Your task to perform on an android device: see tabs open on other devices in the chrome app Image 0: 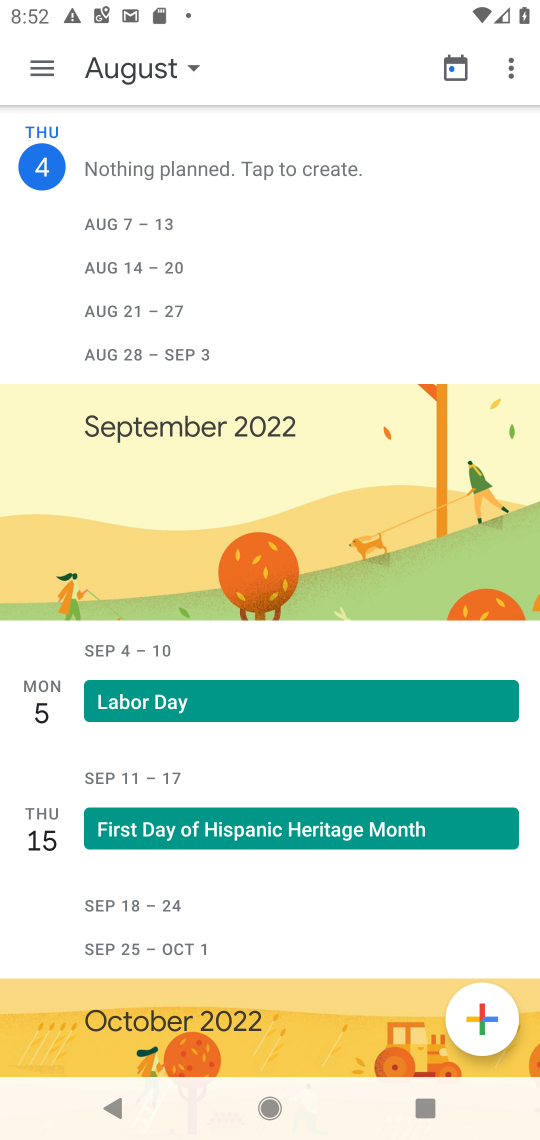
Step 0: press home button
Your task to perform on an android device: see tabs open on other devices in the chrome app Image 1: 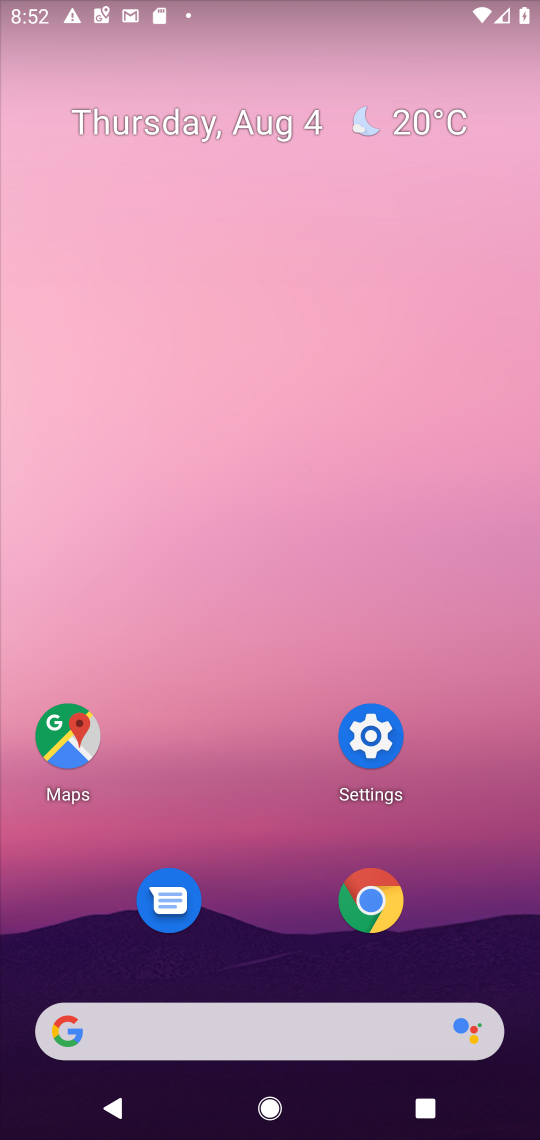
Step 1: click (375, 889)
Your task to perform on an android device: see tabs open on other devices in the chrome app Image 2: 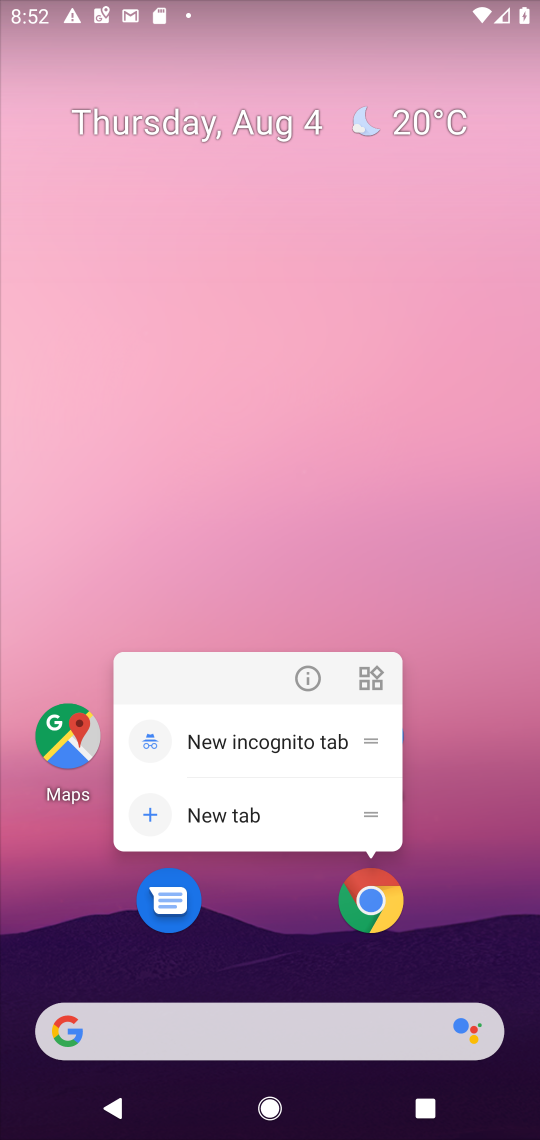
Step 2: click (375, 891)
Your task to perform on an android device: see tabs open on other devices in the chrome app Image 3: 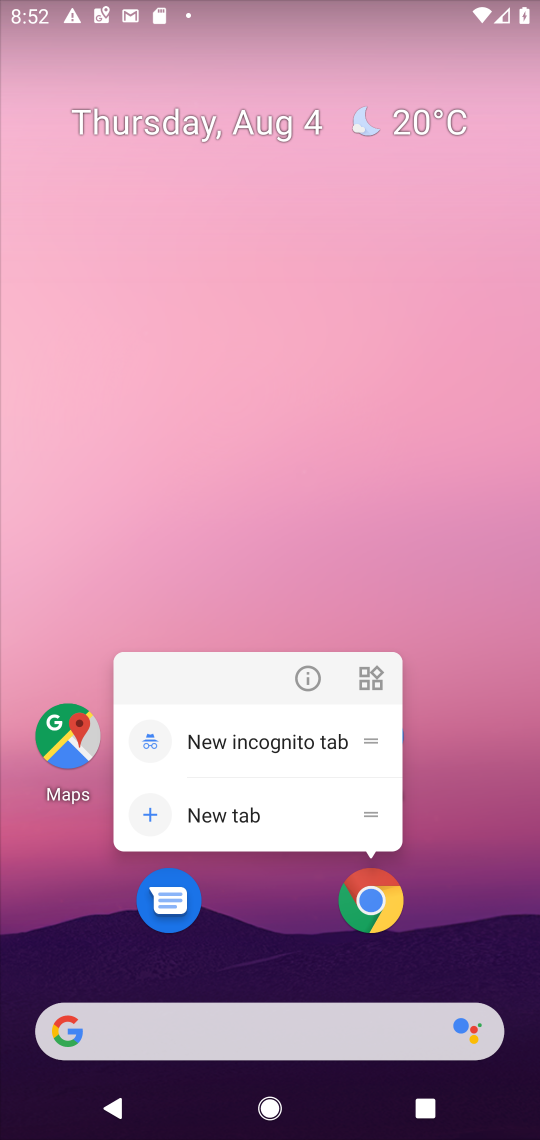
Step 3: click (370, 907)
Your task to perform on an android device: see tabs open on other devices in the chrome app Image 4: 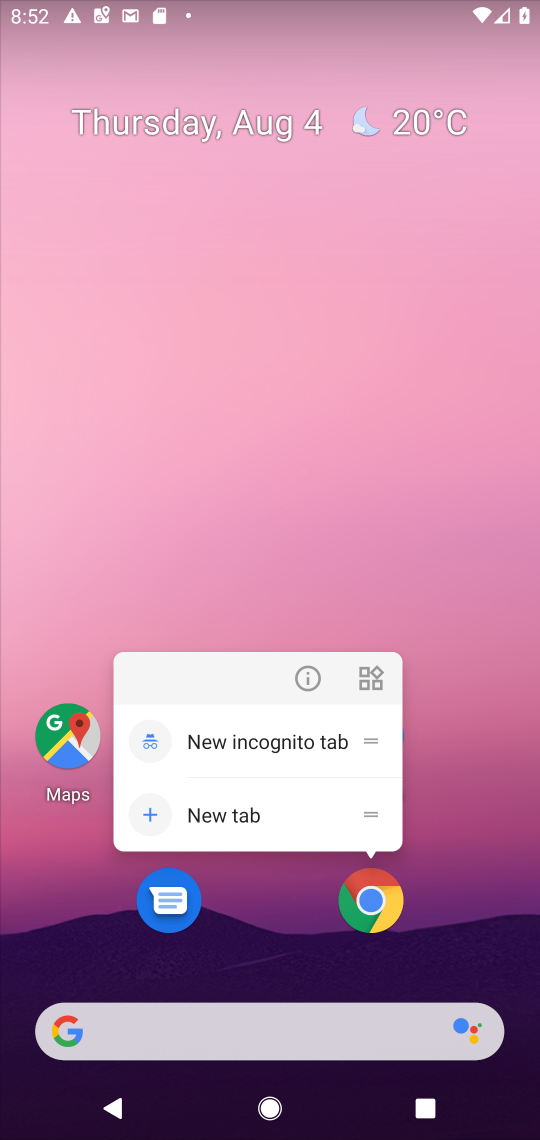
Step 4: click (370, 907)
Your task to perform on an android device: see tabs open on other devices in the chrome app Image 5: 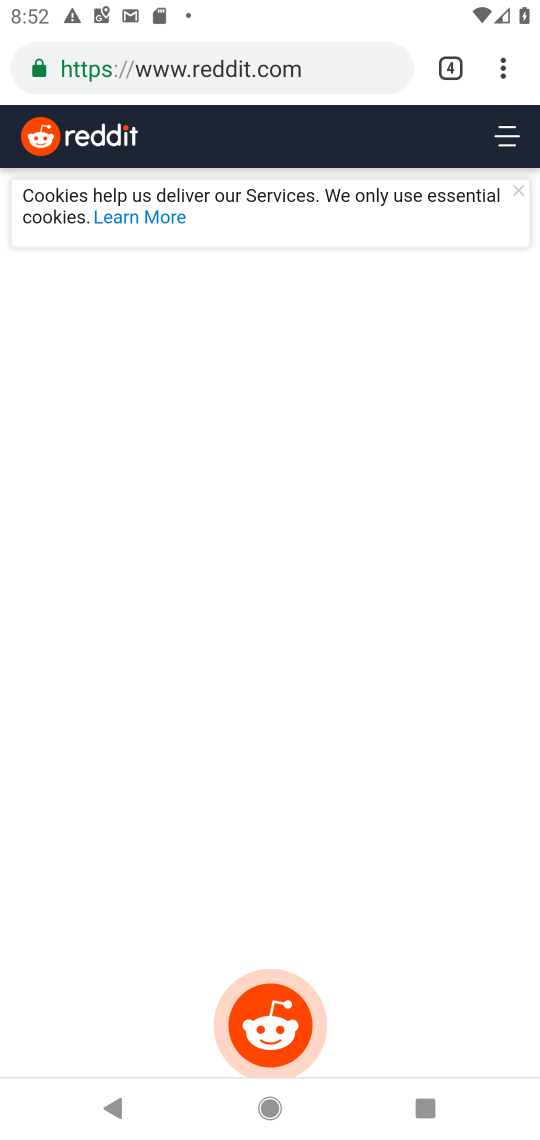
Step 5: task complete